Your task to perform on an android device: Search for pizza restaurants on Maps Image 0: 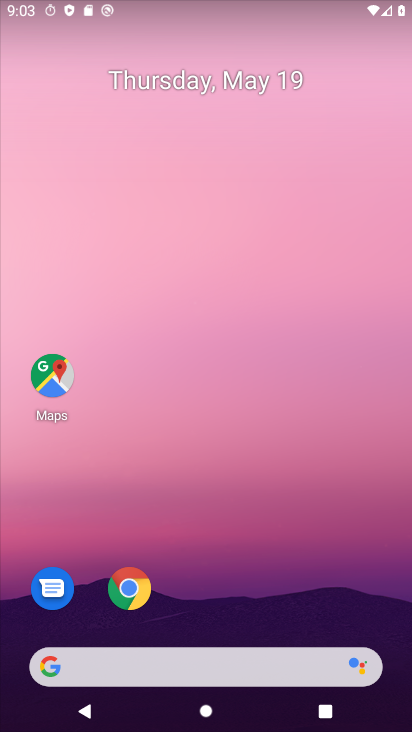
Step 0: click (50, 385)
Your task to perform on an android device: Search for pizza restaurants on Maps Image 1: 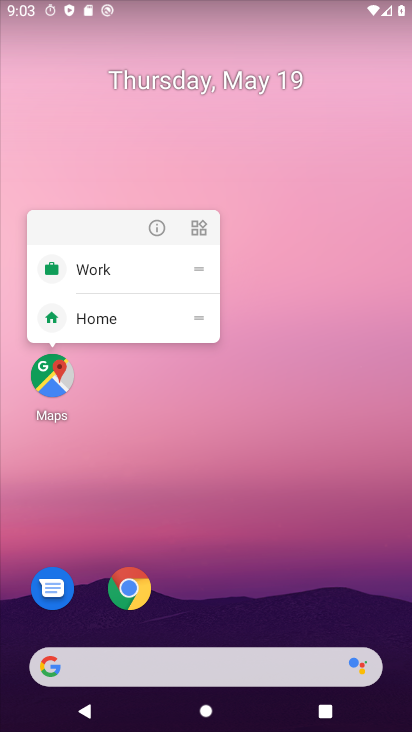
Step 1: click (50, 386)
Your task to perform on an android device: Search for pizza restaurants on Maps Image 2: 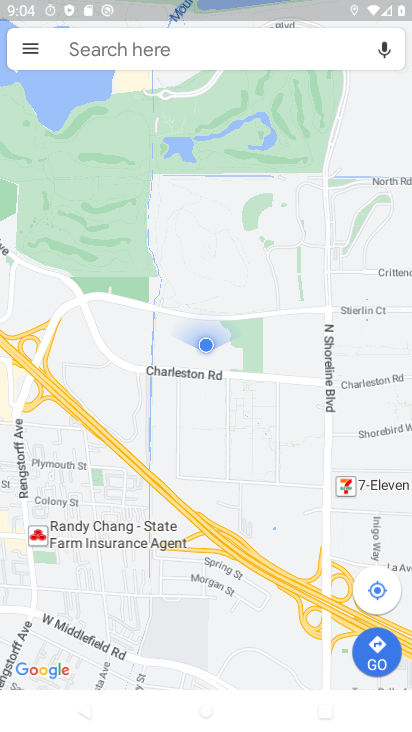
Step 2: click (165, 49)
Your task to perform on an android device: Search for pizza restaurants on Maps Image 3: 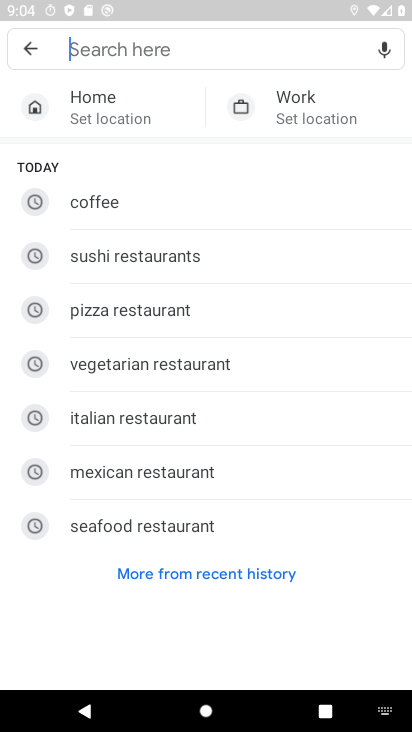
Step 3: click (109, 311)
Your task to perform on an android device: Search for pizza restaurants on Maps Image 4: 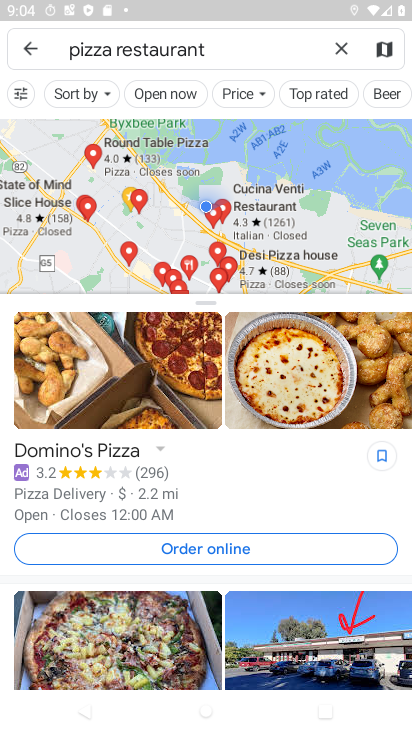
Step 4: task complete